Your task to perform on an android device: Open Google Image 0: 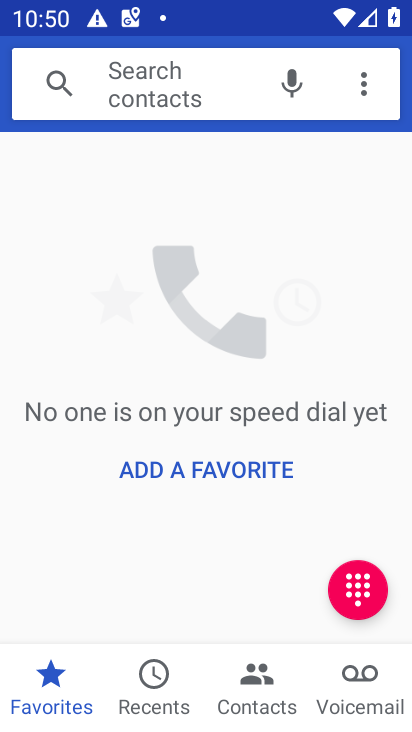
Step 0: press home button
Your task to perform on an android device: Open Google Image 1: 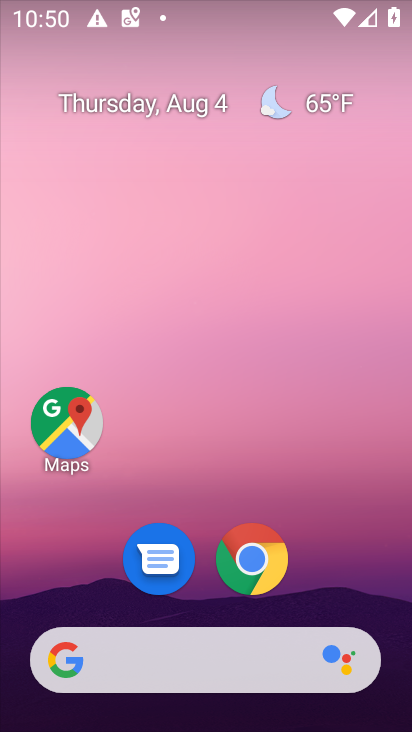
Step 1: drag from (202, 648) to (37, 13)
Your task to perform on an android device: Open Google Image 2: 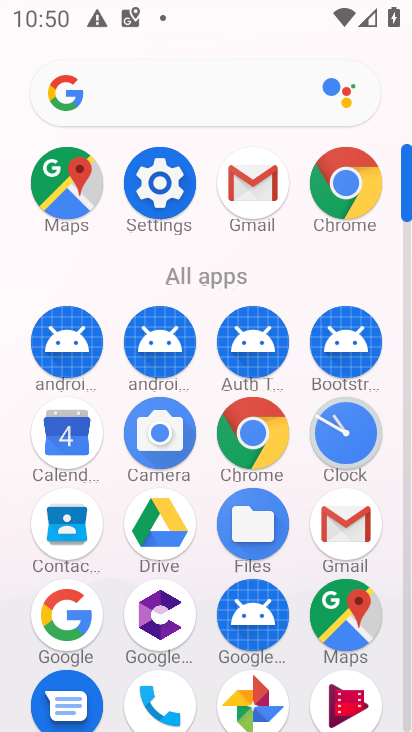
Step 2: click (56, 625)
Your task to perform on an android device: Open Google Image 3: 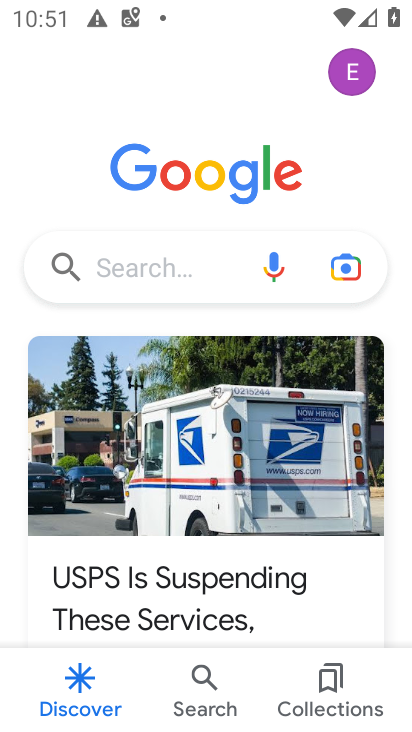
Step 3: task complete